Your task to perform on an android device: Look up the best rated power drills on Lowes.com Image 0: 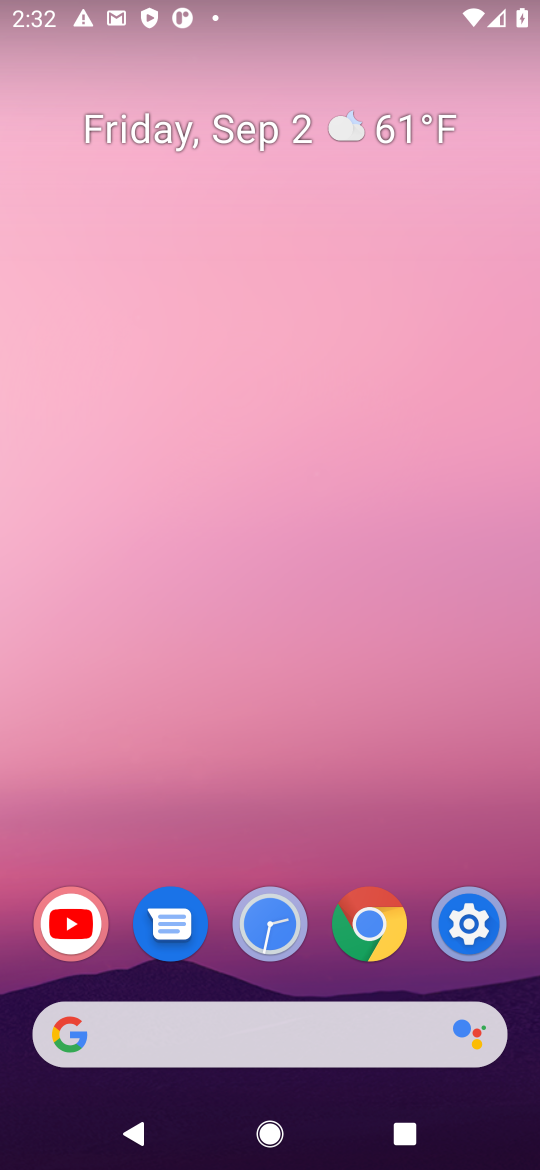
Step 0: click (367, 1032)
Your task to perform on an android device: Look up the best rated power drills on Lowes.com Image 1: 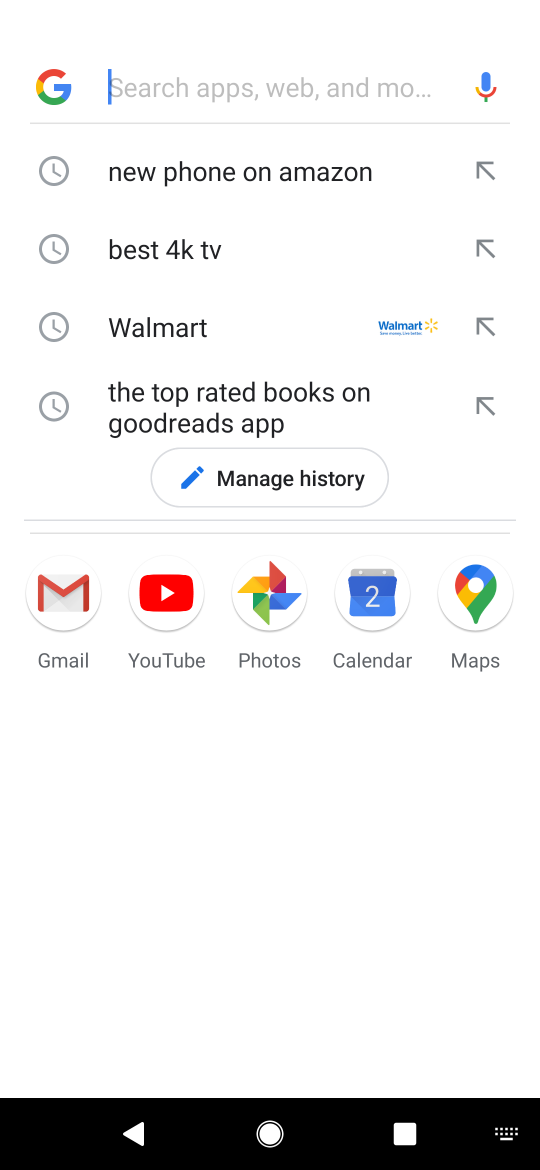
Step 1: press enter
Your task to perform on an android device: Look up the best rated power drills on Lowes.com Image 2: 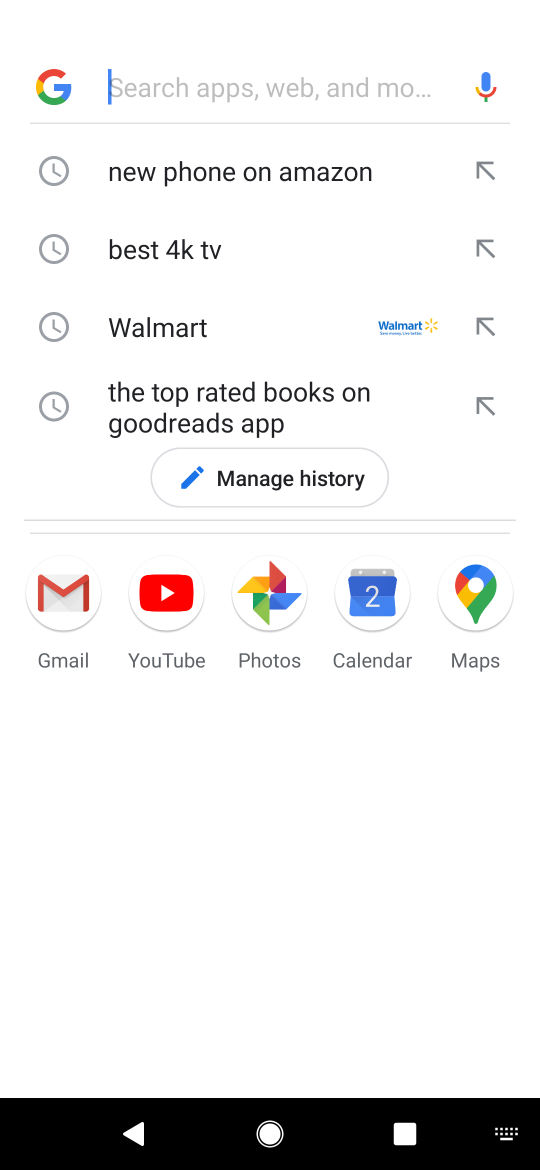
Step 2: type "lowes.com"
Your task to perform on an android device: Look up the best rated power drills on Lowes.com Image 3: 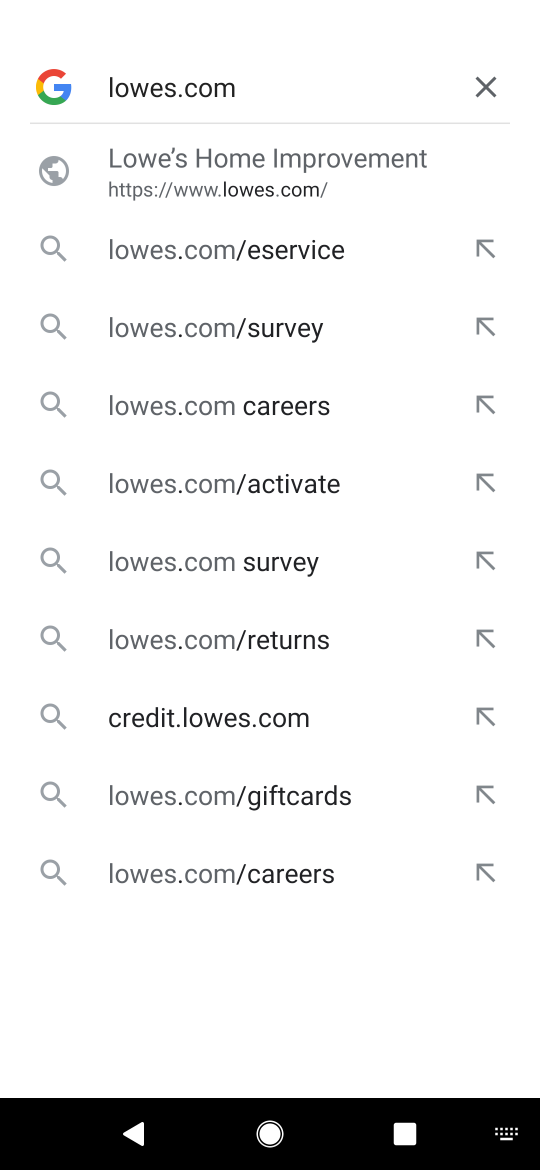
Step 3: click (331, 169)
Your task to perform on an android device: Look up the best rated power drills on Lowes.com Image 4: 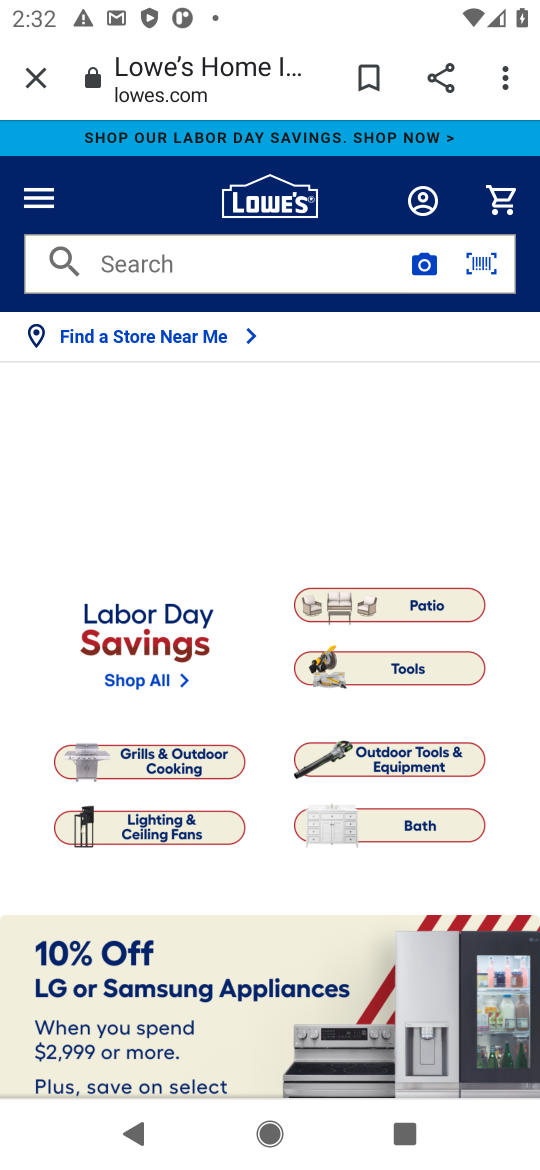
Step 4: click (246, 256)
Your task to perform on an android device: Look up the best rated power drills on Lowes.com Image 5: 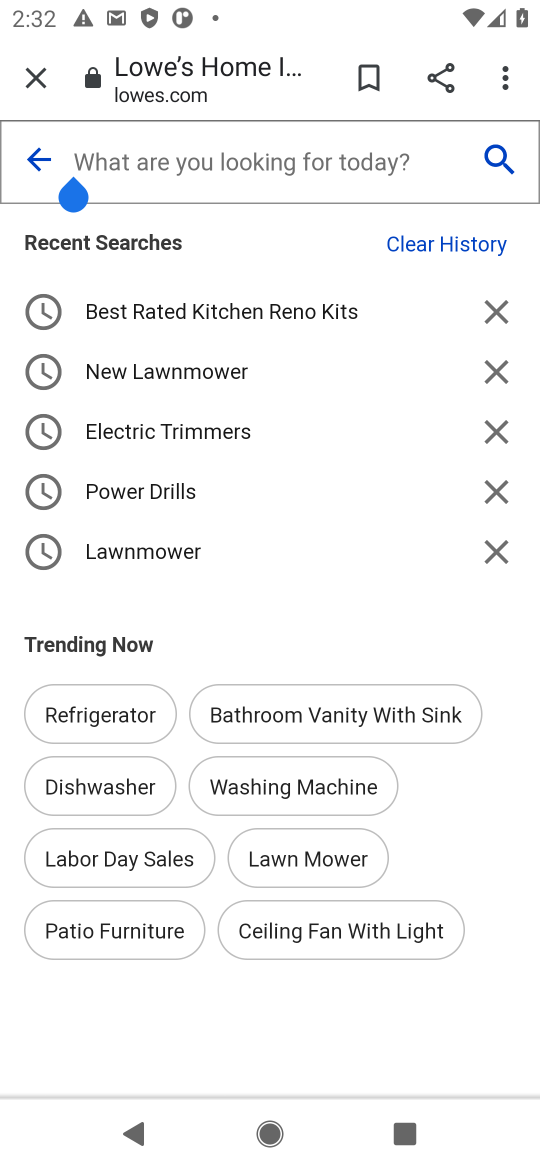
Step 5: type "best rated power drills"
Your task to perform on an android device: Look up the best rated power drills on Lowes.com Image 6: 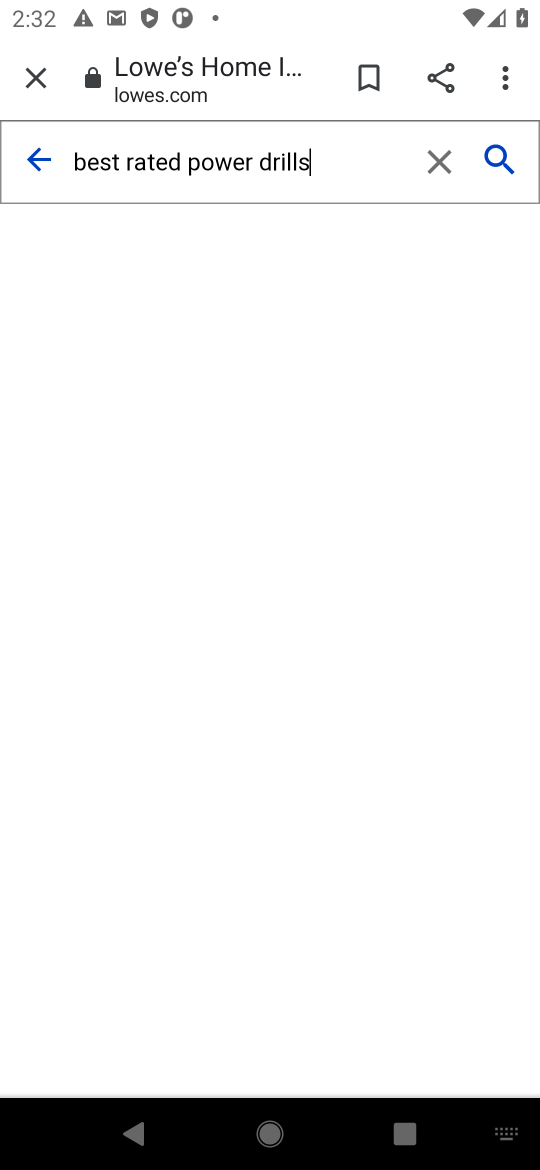
Step 6: click (494, 164)
Your task to perform on an android device: Look up the best rated power drills on Lowes.com Image 7: 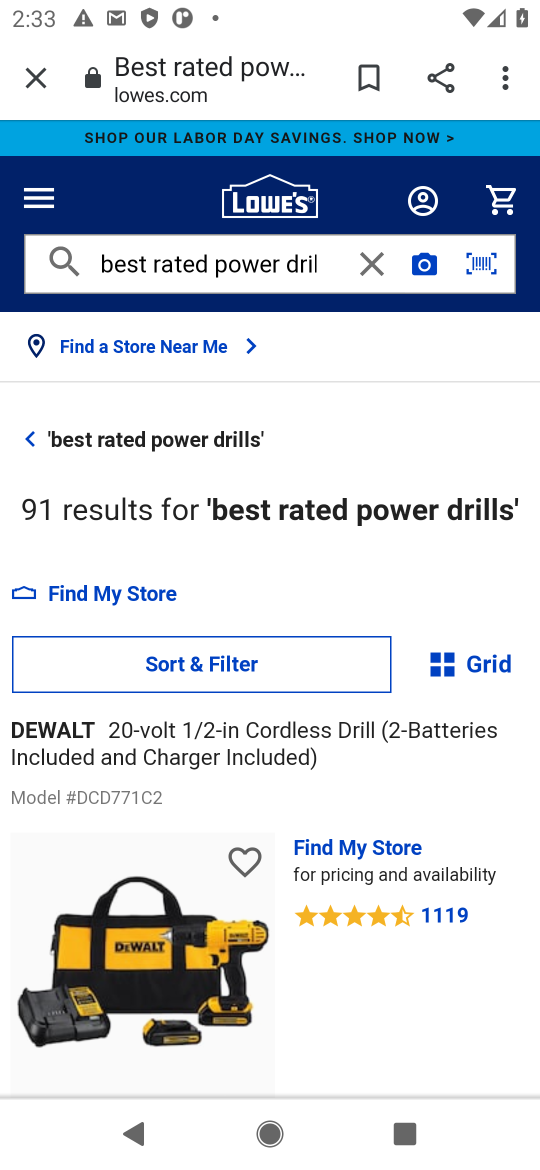
Step 7: task complete